Your task to perform on an android device: turn off smart reply in the gmail app Image 0: 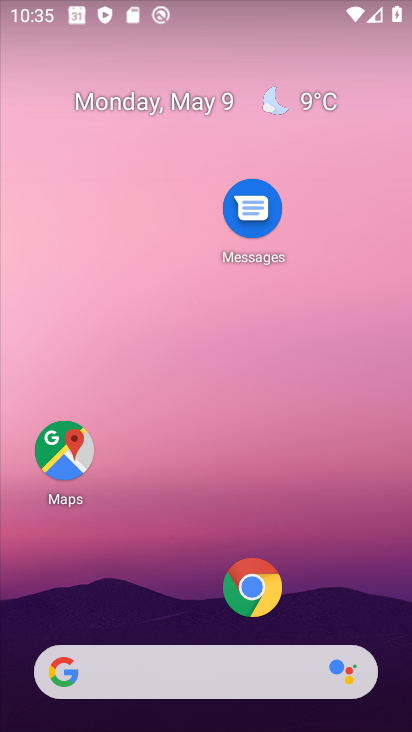
Step 0: drag from (204, 615) to (269, 329)
Your task to perform on an android device: turn off smart reply in the gmail app Image 1: 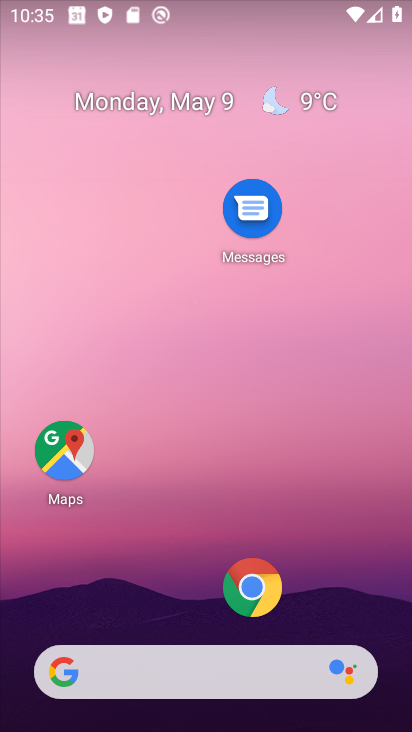
Step 1: drag from (166, 620) to (206, 263)
Your task to perform on an android device: turn off smart reply in the gmail app Image 2: 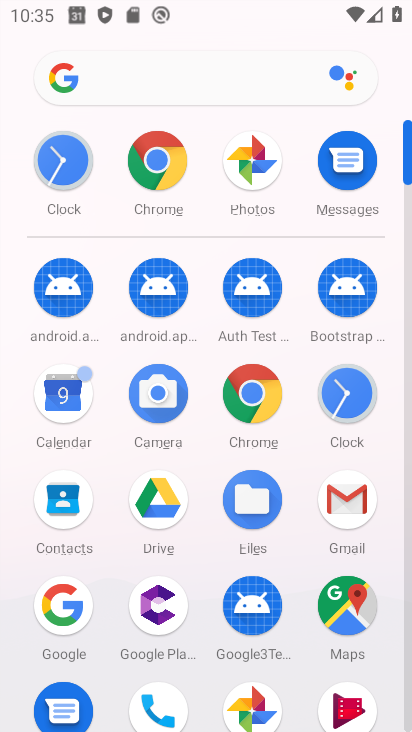
Step 2: click (354, 488)
Your task to perform on an android device: turn off smart reply in the gmail app Image 3: 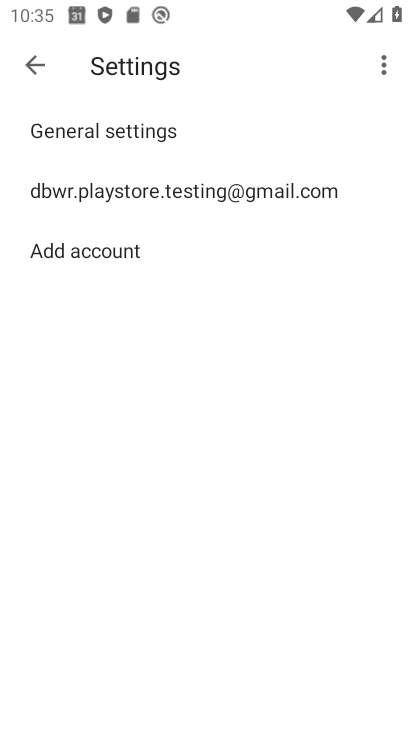
Step 3: click (199, 195)
Your task to perform on an android device: turn off smart reply in the gmail app Image 4: 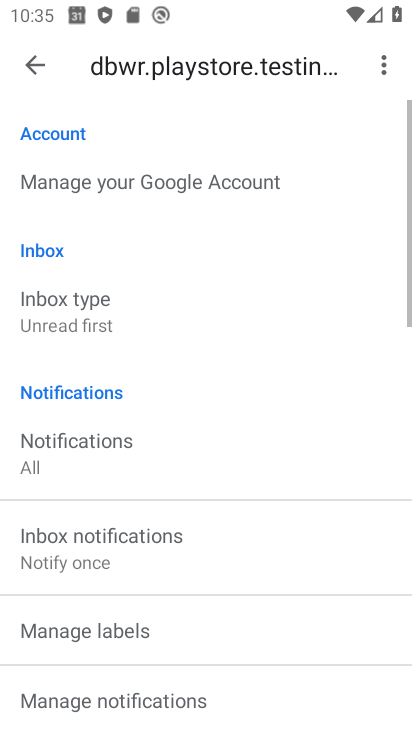
Step 4: drag from (206, 529) to (223, 251)
Your task to perform on an android device: turn off smart reply in the gmail app Image 5: 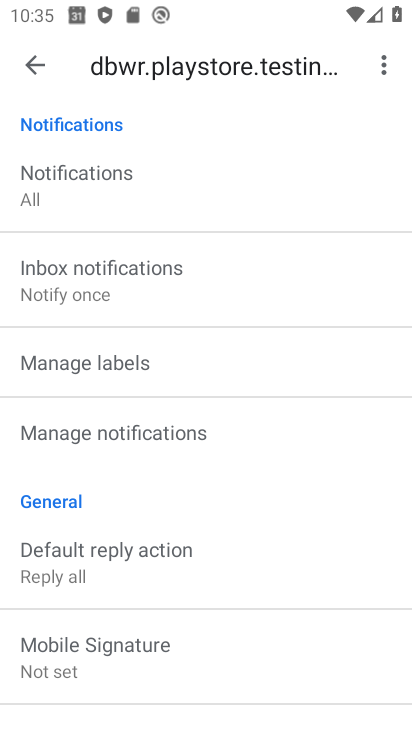
Step 5: drag from (225, 477) to (224, 237)
Your task to perform on an android device: turn off smart reply in the gmail app Image 6: 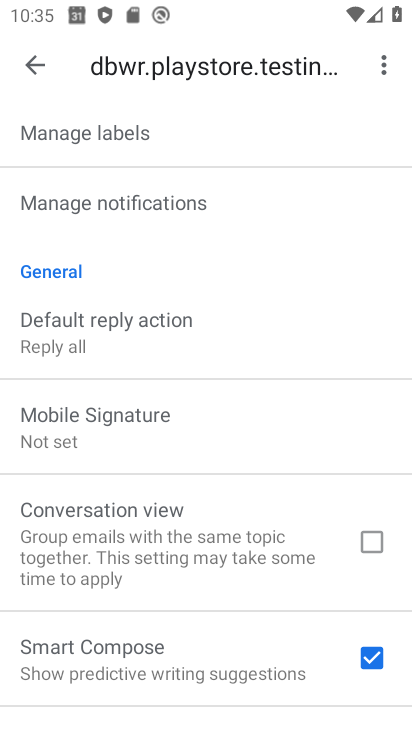
Step 6: drag from (226, 482) to (244, 220)
Your task to perform on an android device: turn off smart reply in the gmail app Image 7: 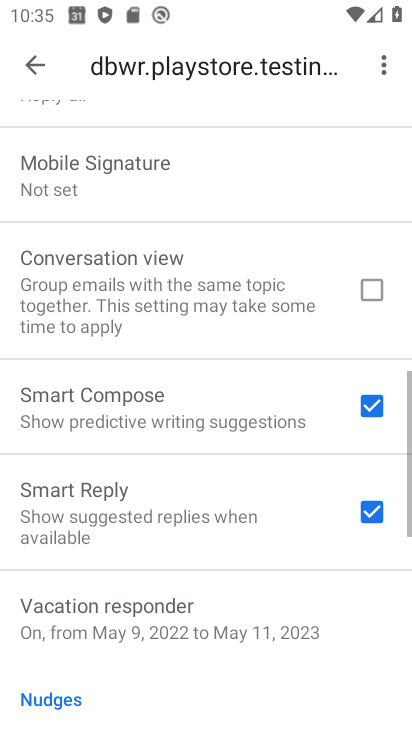
Step 7: drag from (209, 624) to (233, 234)
Your task to perform on an android device: turn off smart reply in the gmail app Image 8: 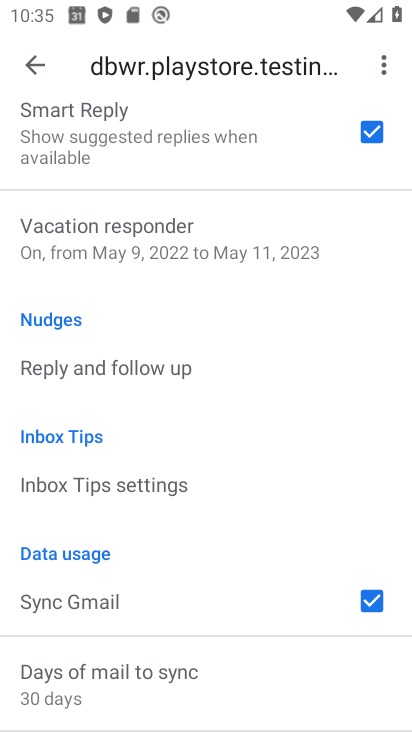
Step 8: drag from (182, 604) to (208, 168)
Your task to perform on an android device: turn off smart reply in the gmail app Image 9: 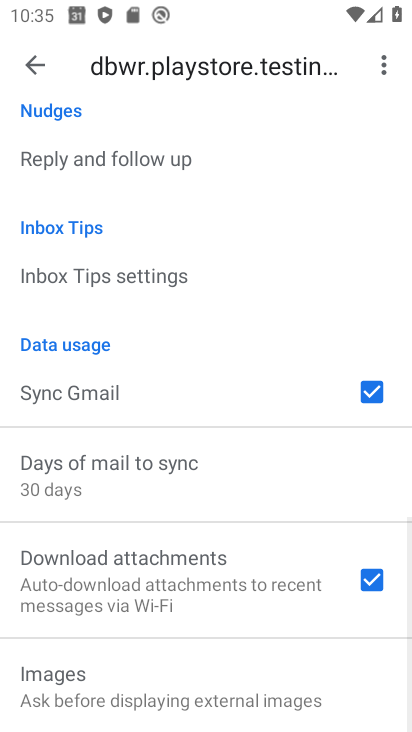
Step 9: drag from (143, 234) to (279, 713)
Your task to perform on an android device: turn off smart reply in the gmail app Image 10: 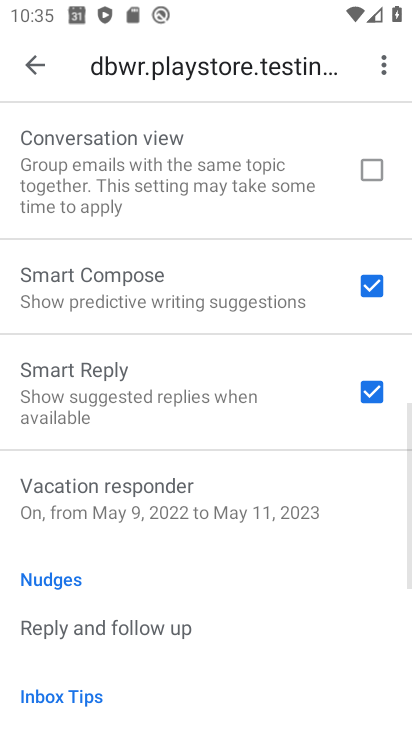
Step 10: drag from (214, 187) to (269, 723)
Your task to perform on an android device: turn off smart reply in the gmail app Image 11: 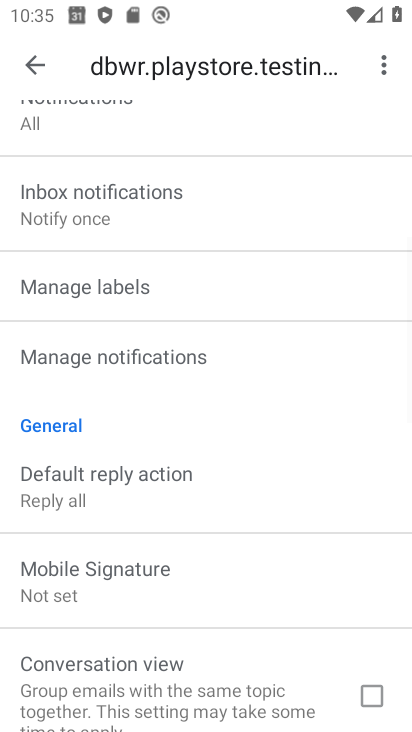
Step 11: drag from (233, 627) to (314, 176)
Your task to perform on an android device: turn off smart reply in the gmail app Image 12: 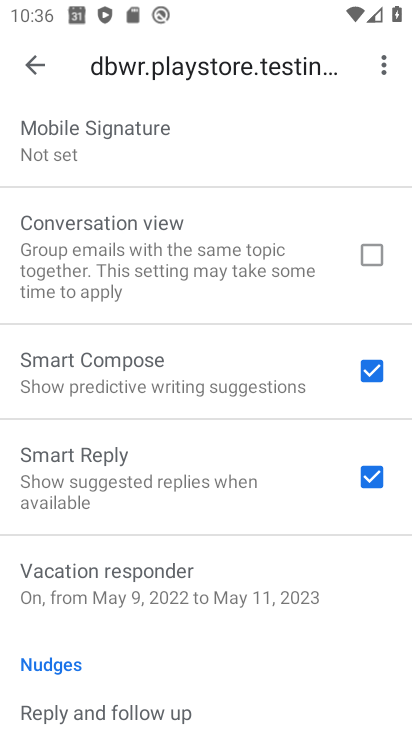
Step 12: drag from (225, 626) to (340, 194)
Your task to perform on an android device: turn off smart reply in the gmail app Image 13: 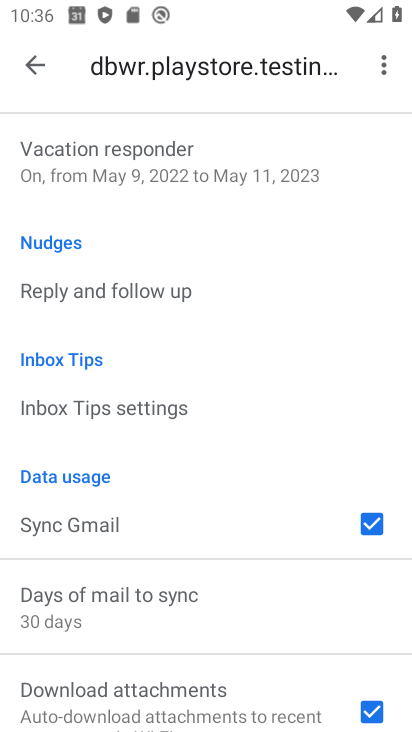
Step 13: drag from (244, 322) to (299, 662)
Your task to perform on an android device: turn off smart reply in the gmail app Image 14: 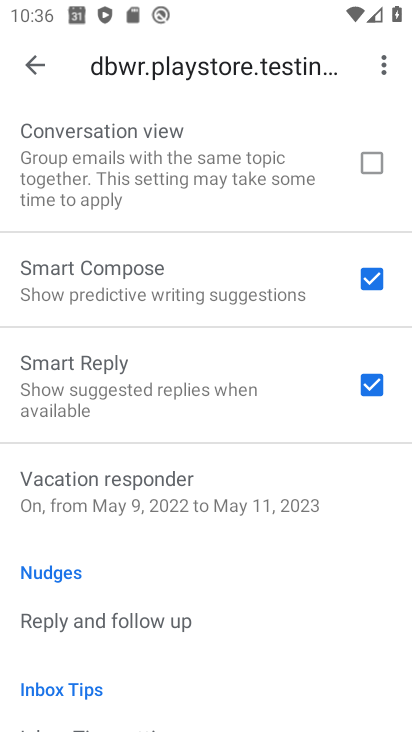
Step 14: click (368, 386)
Your task to perform on an android device: turn off smart reply in the gmail app Image 15: 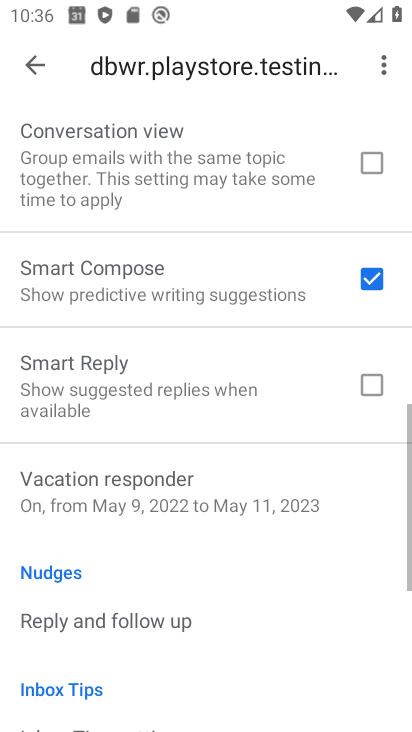
Step 15: task complete